Your task to perform on an android device: turn on priority inbox in the gmail app Image 0: 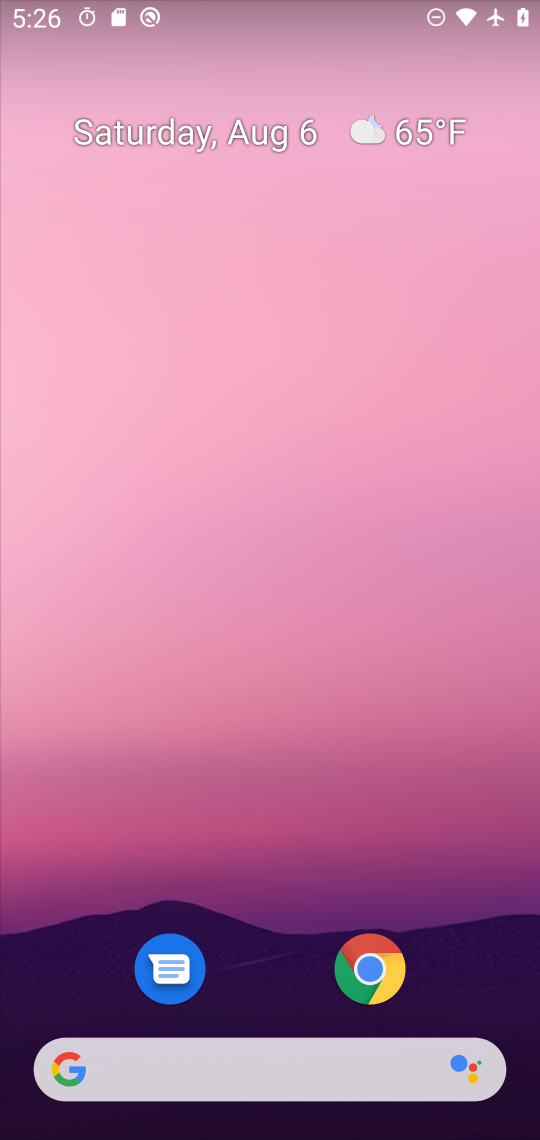
Step 0: press home button
Your task to perform on an android device: turn on priority inbox in the gmail app Image 1: 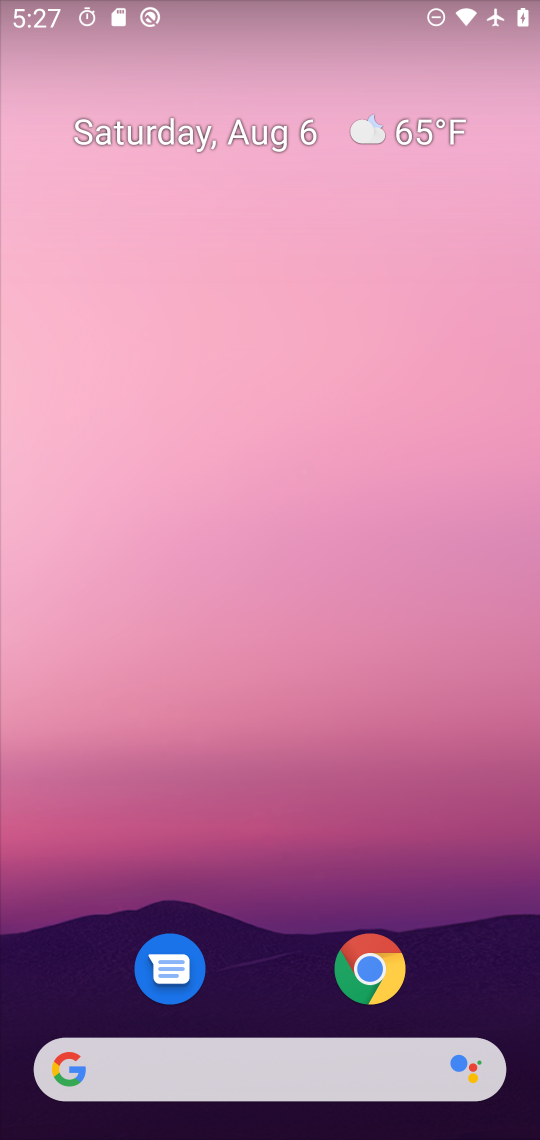
Step 1: drag from (273, 1021) to (318, 345)
Your task to perform on an android device: turn on priority inbox in the gmail app Image 2: 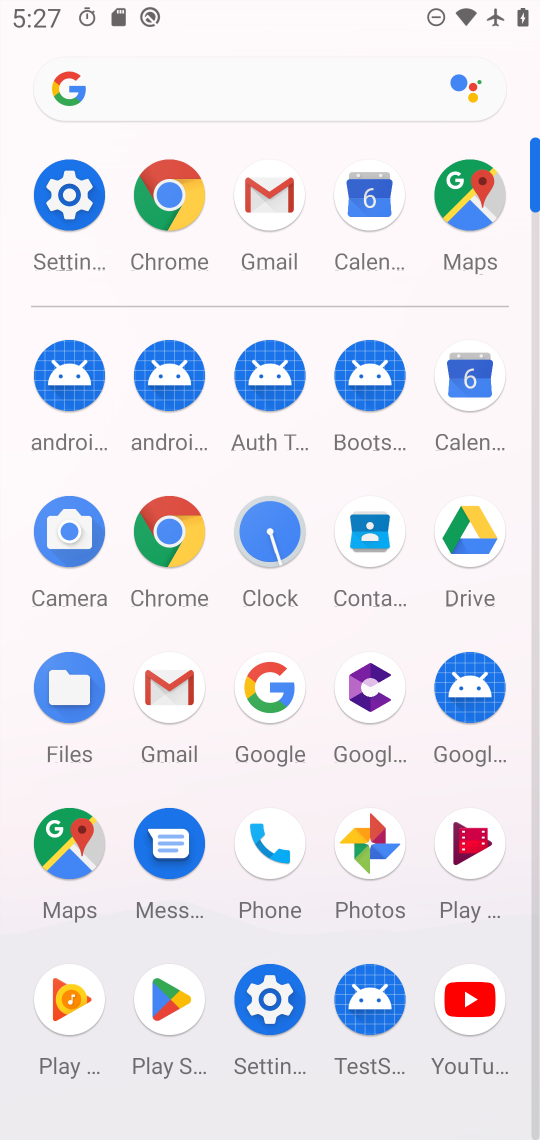
Step 2: click (276, 208)
Your task to perform on an android device: turn on priority inbox in the gmail app Image 3: 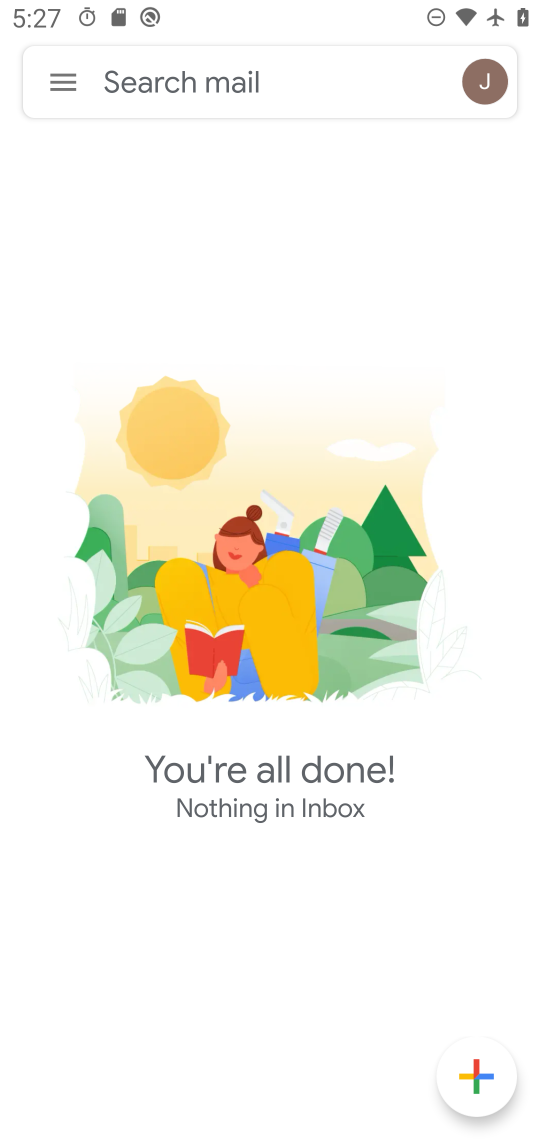
Step 3: click (64, 82)
Your task to perform on an android device: turn on priority inbox in the gmail app Image 4: 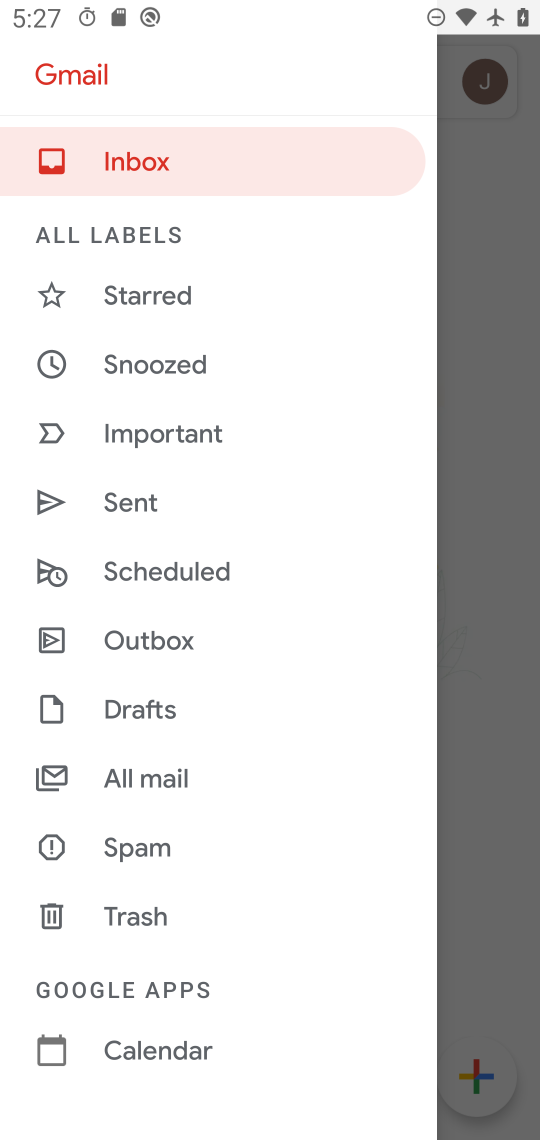
Step 4: drag from (302, 863) to (328, 21)
Your task to perform on an android device: turn on priority inbox in the gmail app Image 5: 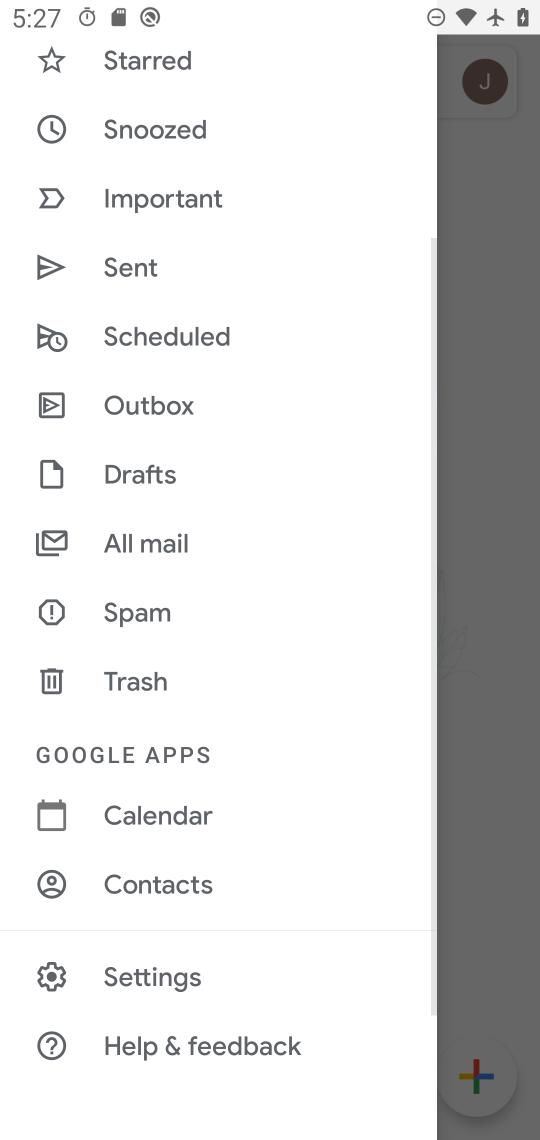
Step 5: click (177, 960)
Your task to perform on an android device: turn on priority inbox in the gmail app Image 6: 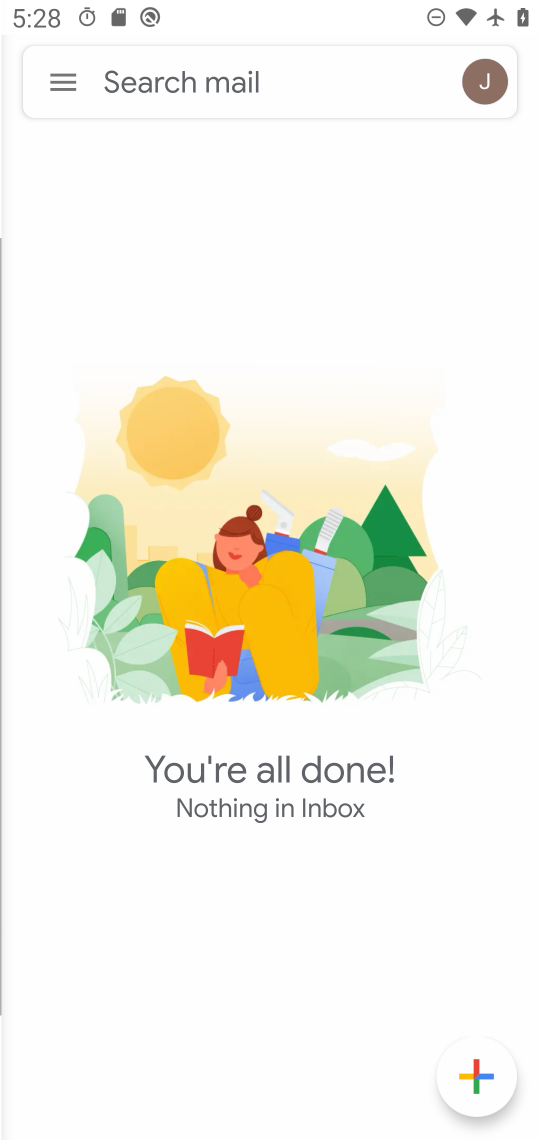
Step 6: click (177, 978)
Your task to perform on an android device: turn on priority inbox in the gmail app Image 7: 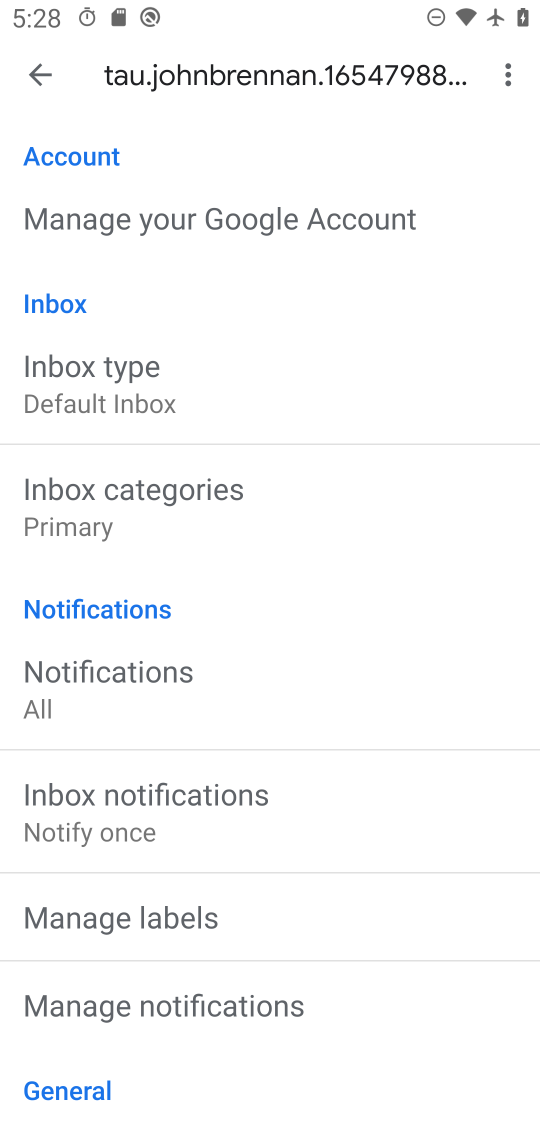
Step 7: click (93, 381)
Your task to perform on an android device: turn on priority inbox in the gmail app Image 8: 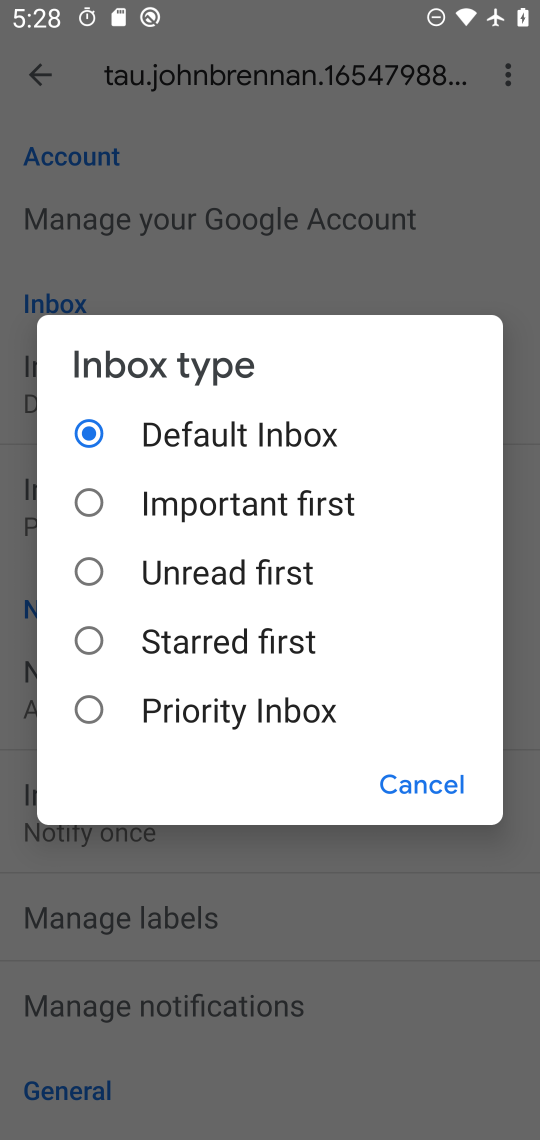
Step 8: click (92, 710)
Your task to perform on an android device: turn on priority inbox in the gmail app Image 9: 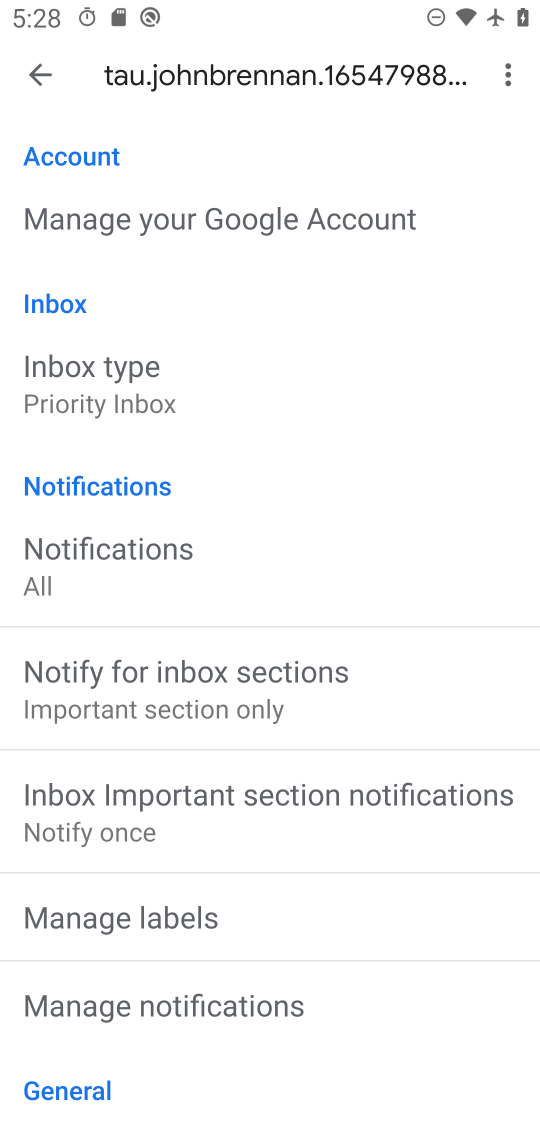
Step 9: task complete